Your task to perform on an android device: Open the stopwatch Image 0: 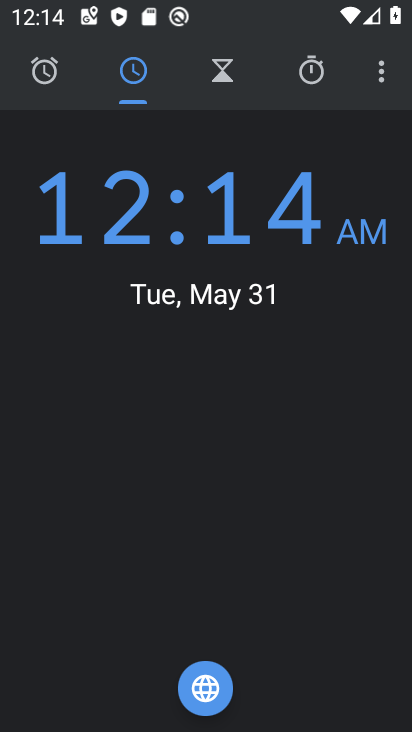
Step 0: click (289, 61)
Your task to perform on an android device: Open the stopwatch Image 1: 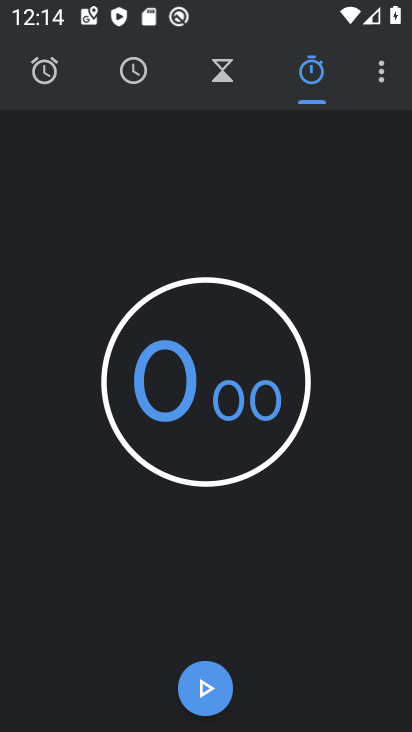
Step 1: click (219, 713)
Your task to perform on an android device: Open the stopwatch Image 2: 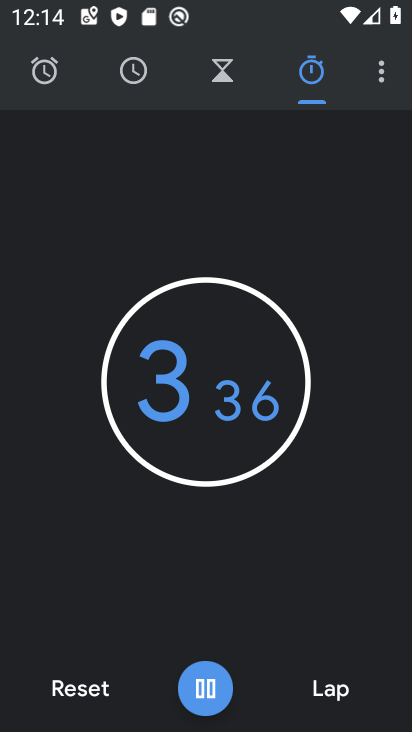
Step 2: task complete